Your task to perform on an android device: find photos in the google photos app Image 0: 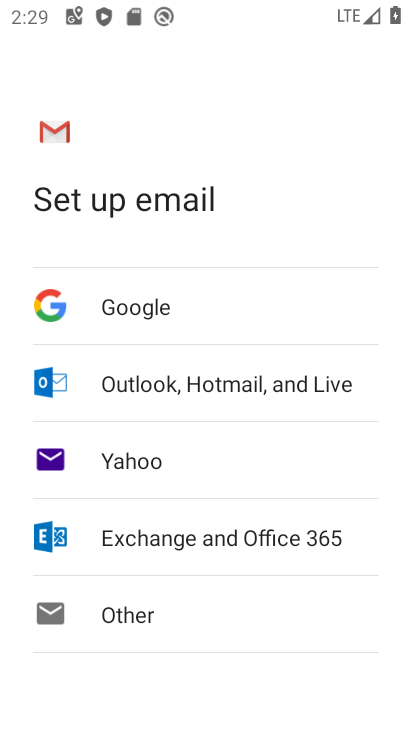
Step 0: press home button
Your task to perform on an android device: find photos in the google photos app Image 1: 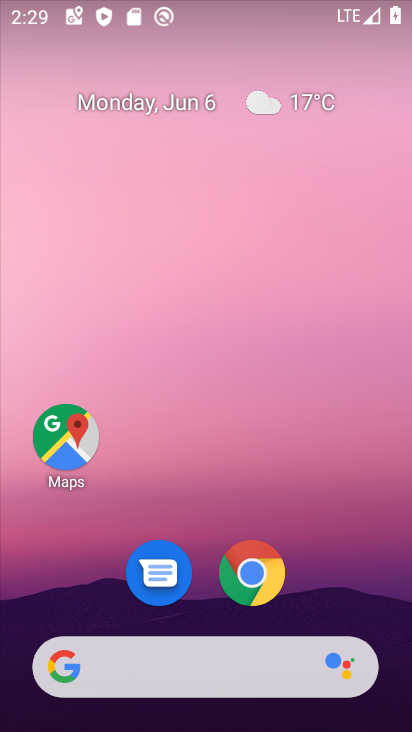
Step 1: drag from (361, 582) to (373, 122)
Your task to perform on an android device: find photos in the google photos app Image 2: 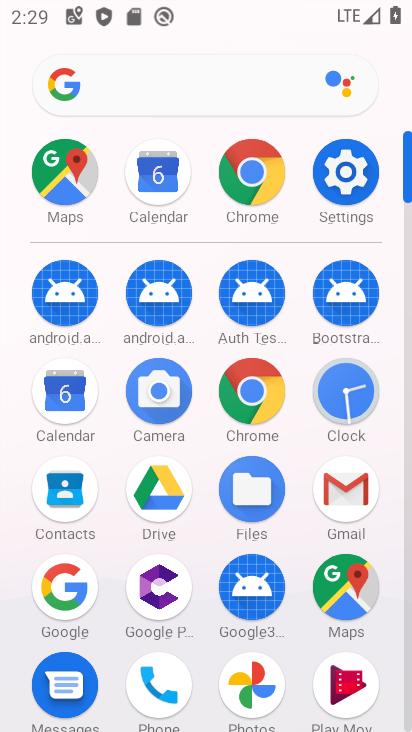
Step 2: click (260, 691)
Your task to perform on an android device: find photos in the google photos app Image 3: 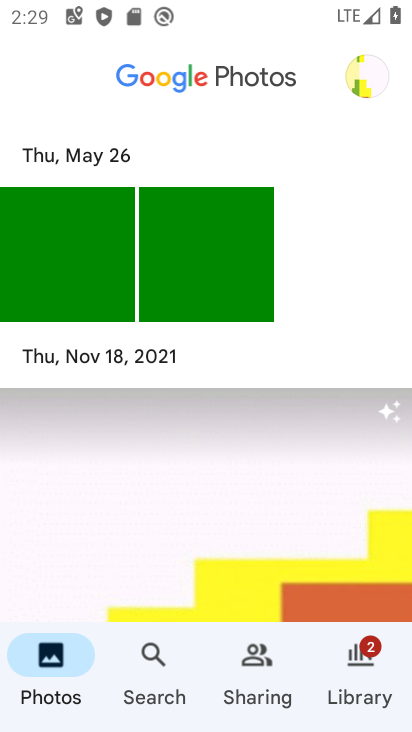
Step 3: click (96, 281)
Your task to perform on an android device: find photos in the google photos app Image 4: 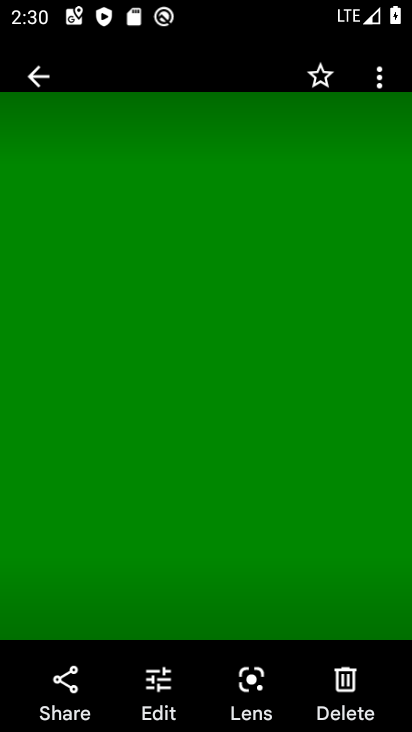
Step 4: task complete